Your task to perform on an android device: Go to Amazon Image 0: 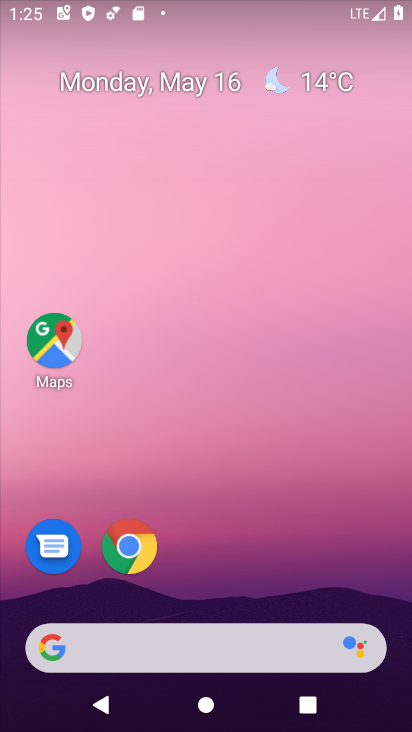
Step 0: drag from (229, 657) to (375, 107)
Your task to perform on an android device: Go to Amazon Image 1: 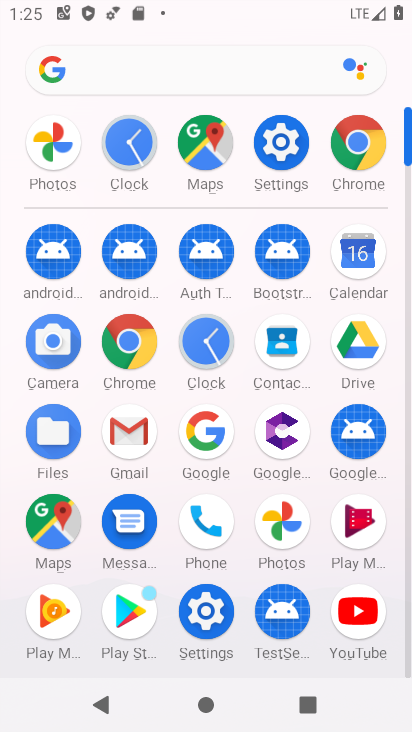
Step 1: click (354, 144)
Your task to perform on an android device: Go to Amazon Image 2: 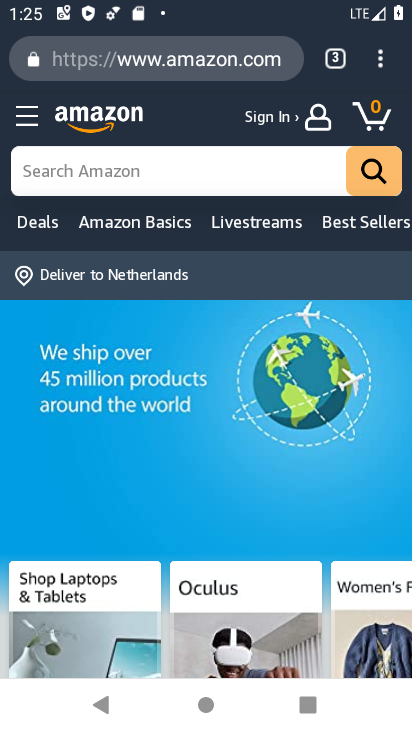
Step 2: task complete